Your task to perform on an android device: Go to battery settings Image 0: 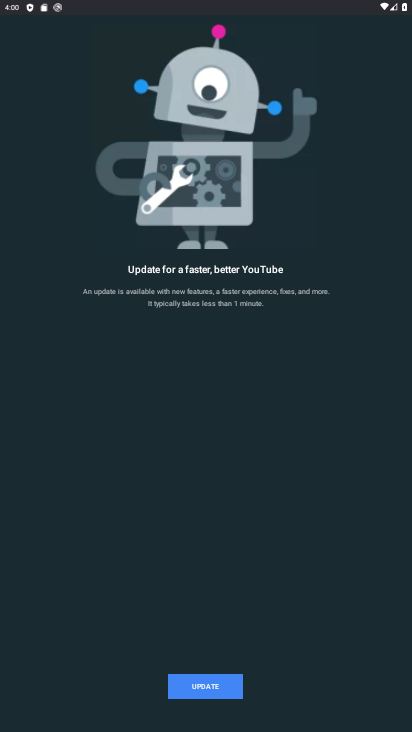
Step 0: drag from (180, 15) to (208, 636)
Your task to perform on an android device: Go to battery settings Image 1: 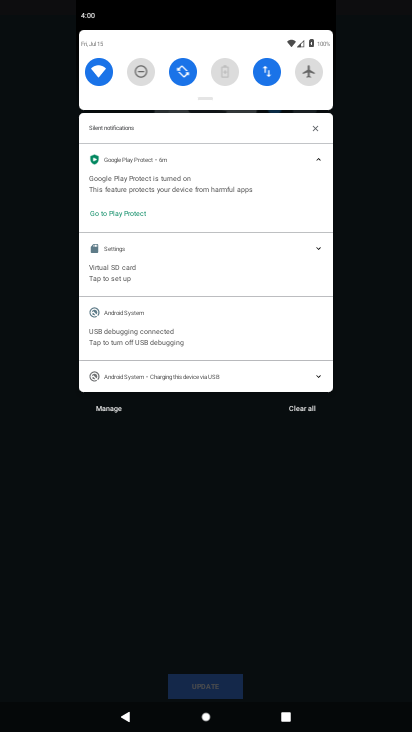
Step 1: click (224, 60)
Your task to perform on an android device: Go to battery settings Image 2: 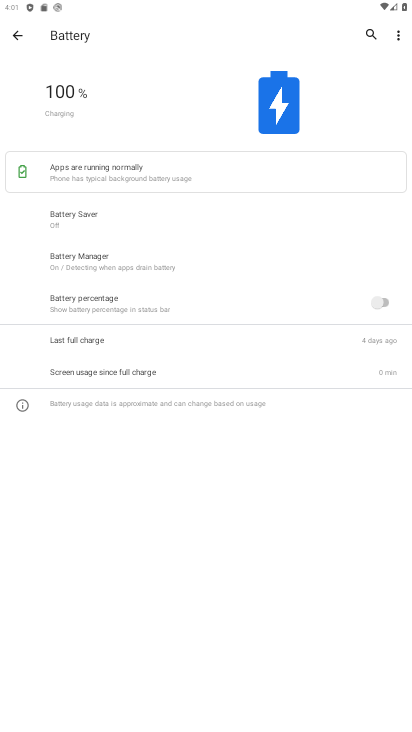
Step 2: task complete